Your task to perform on an android device: delete the emails in spam in the gmail app Image 0: 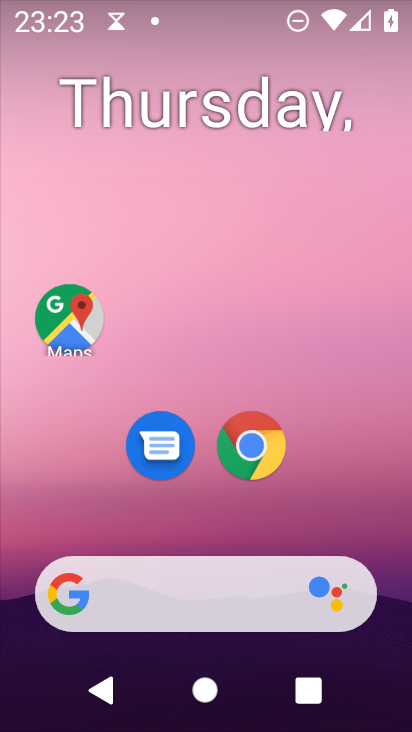
Step 0: drag from (229, 679) to (225, 60)
Your task to perform on an android device: delete the emails in spam in the gmail app Image 1: 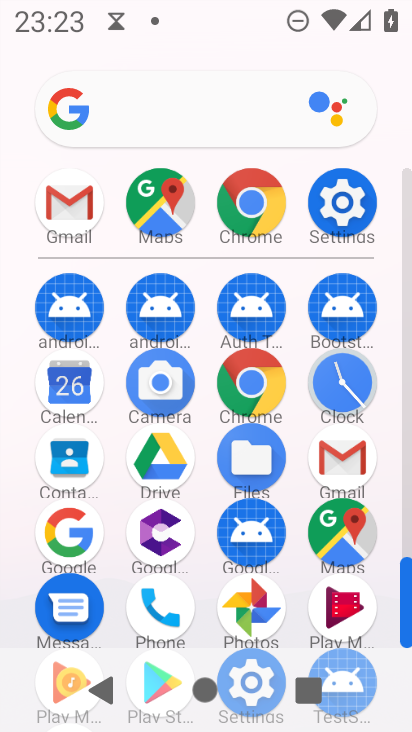
Step 1: click (352, 459)
Your task to perform on an android device: delete the emails in spam in the gmail app Image 2: 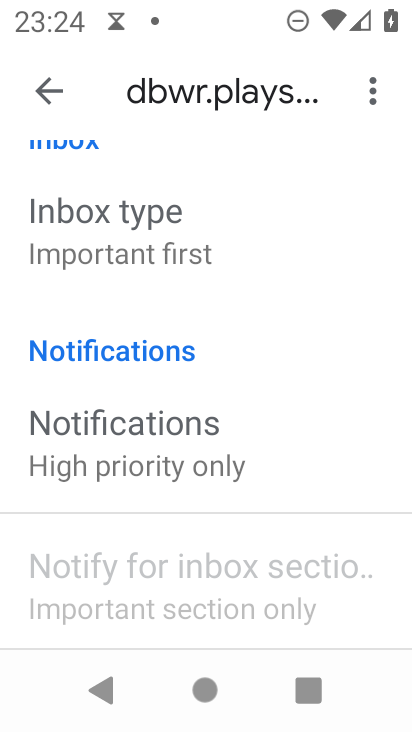
Step 2: click (49, 85)
Your task to perform on an android device: delete the emails in spam in the gmail app Image 3: 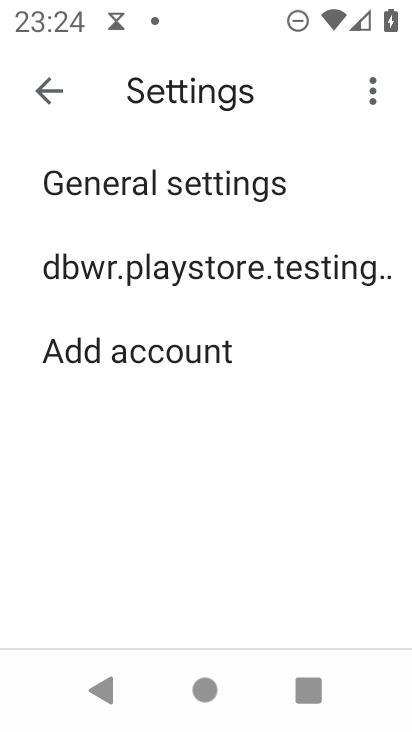
Step 3: click (54, 87)
Your task to perform on an android device: delete the emails in spam in the gmail app Image 4: 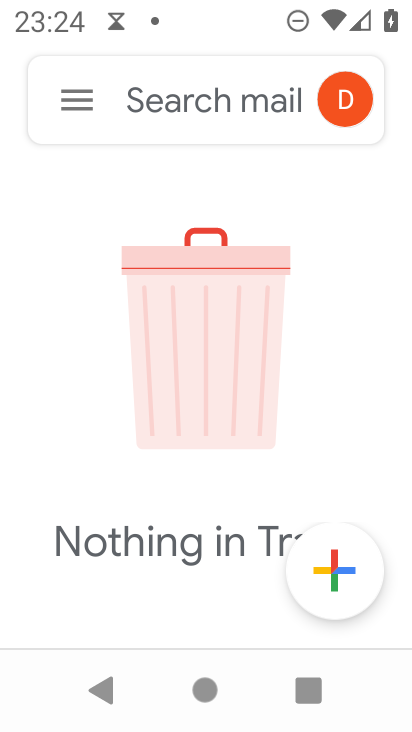
Step 4: click (80, 99)
Your task to perform on an android device: delete the emails in spam in the gmail app Image 5: 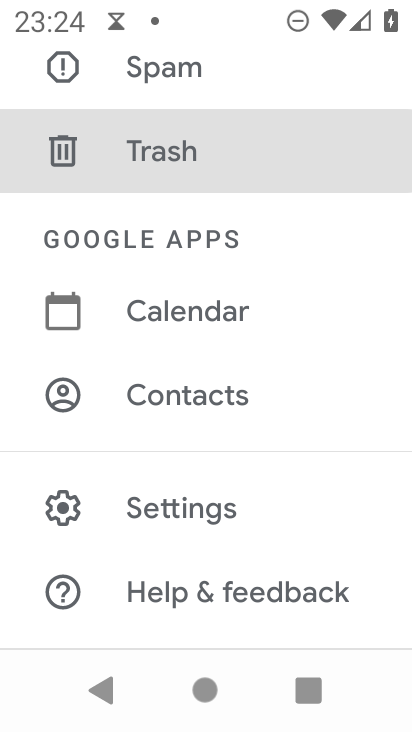
Step 5: drag from (231, 551) to (231, 164)
Your task to perform on an android device: delete the emails in spam in the gmail app Image 6: 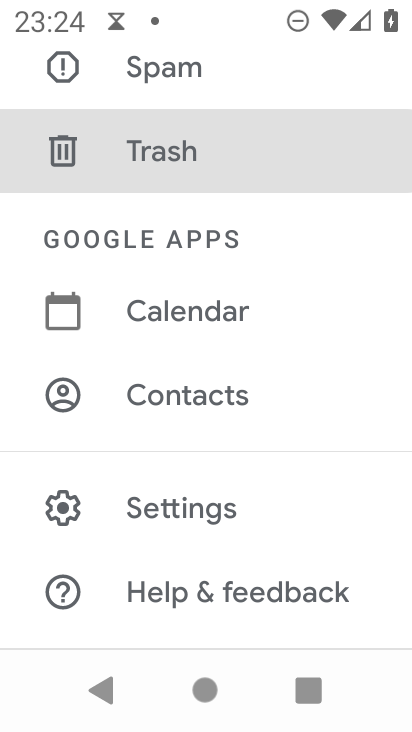
Step 6: drag from (288, 111) to (271, 580)
Your task to perform on an android device: delete the emails in spam in the gmail app Image 7: 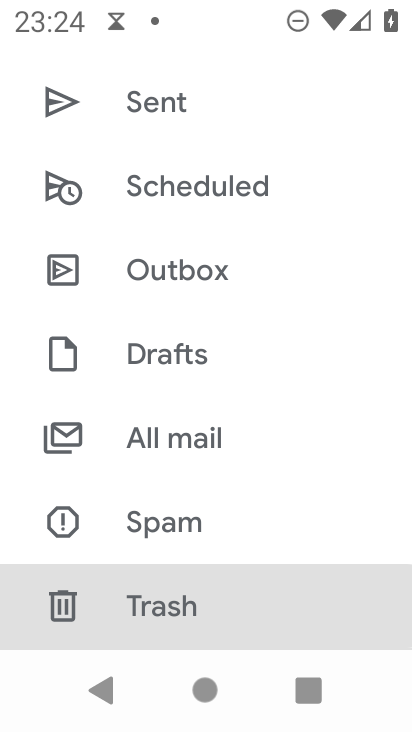
Step 7: drag from (286, 155) to (261, 571)
Your task to perform on an android device: delete the emails in spam in the gmail app Image 8: 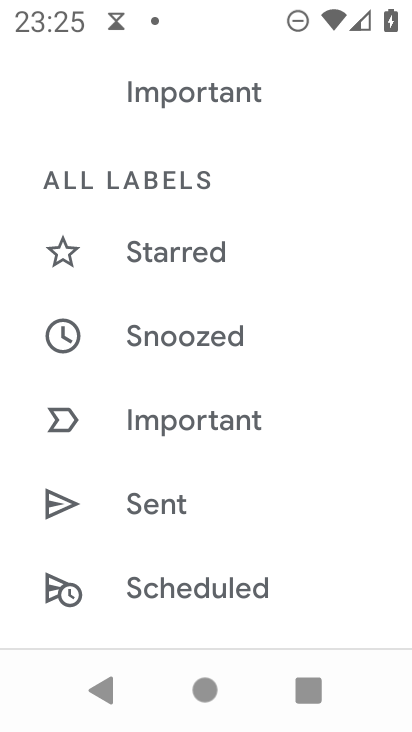
Step 8: drag from (192, 567) to (181, 236)
Your task to perform on an android device: delete the emails in spam in the gmail app Image 9: 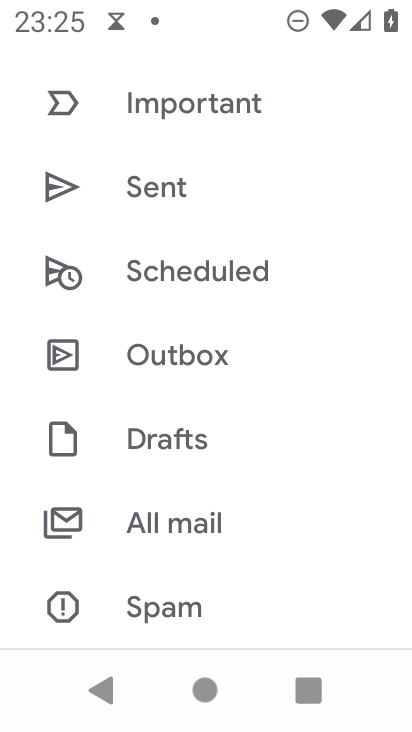
Step 9: click (189, 602)
Your task to perform on an android device: delete the emails in spam in the gmail app Image 10: 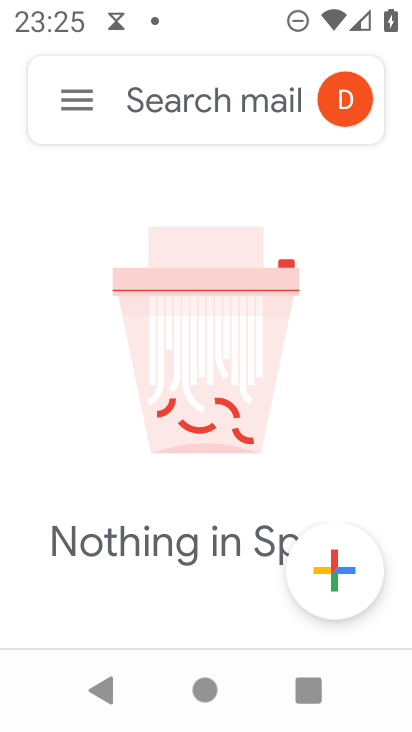
Step 10: task complete